Your task to perform on an android device: Show me popular games on the Play Store Image 0: 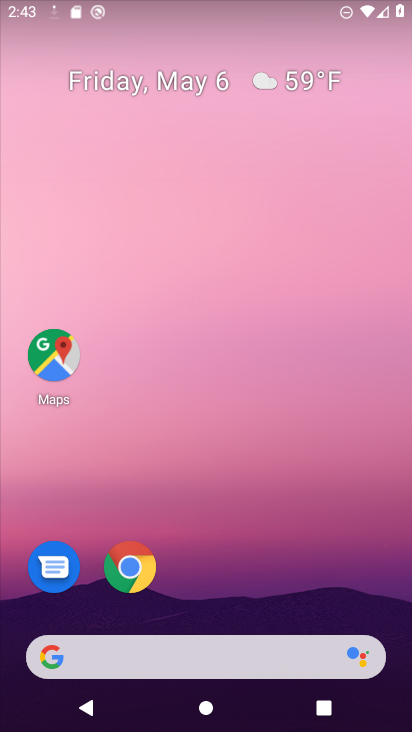
Step 0: drag from (135, 623) to (249, 72)
Your task to perform on an android device: Show me popular games on the Play Store Image 1: 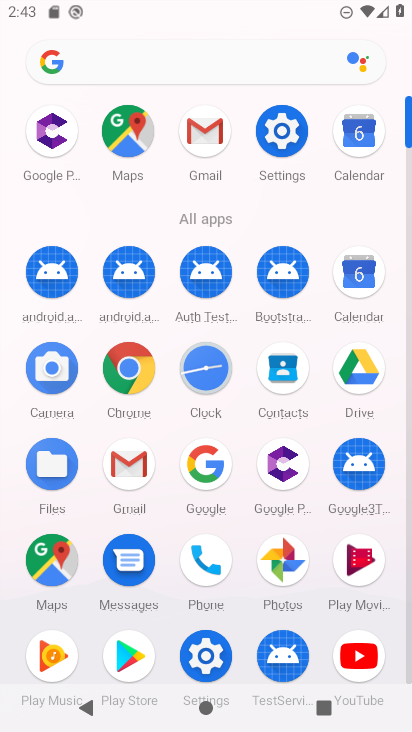
Step 1: drag from (215, 674) to (252, 501)
Your task to perform on an android device: Show me popular games on the Play Store Image 2: 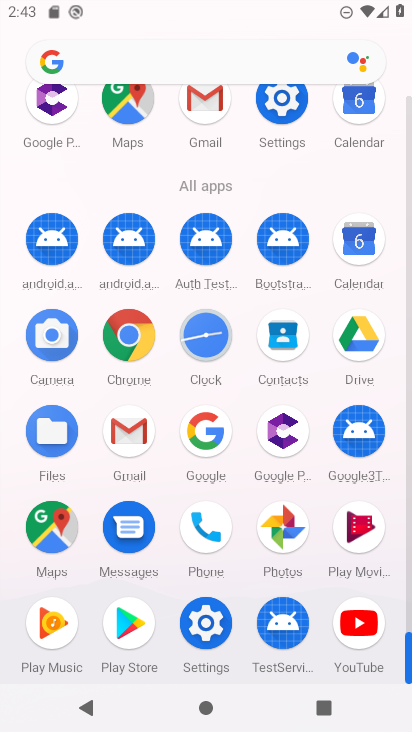
Step 2: click (350, 541)
Your task to perform on an android device: Show me popular games on the Play Store Image 3: 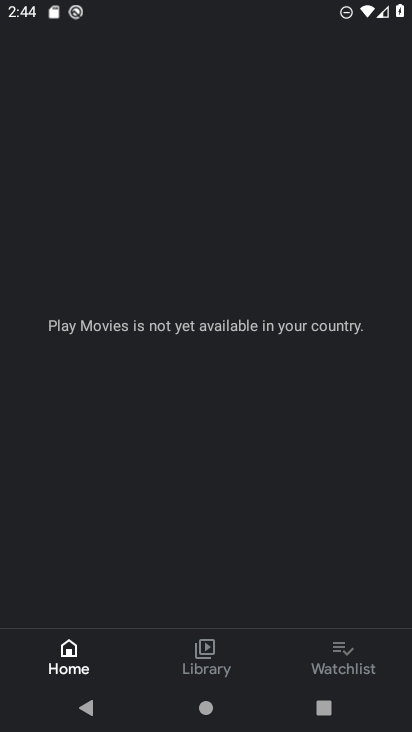
Step 3: click (333, 672)
Your task to perform on an android device: Show me popular games on the Play Store Image 4: 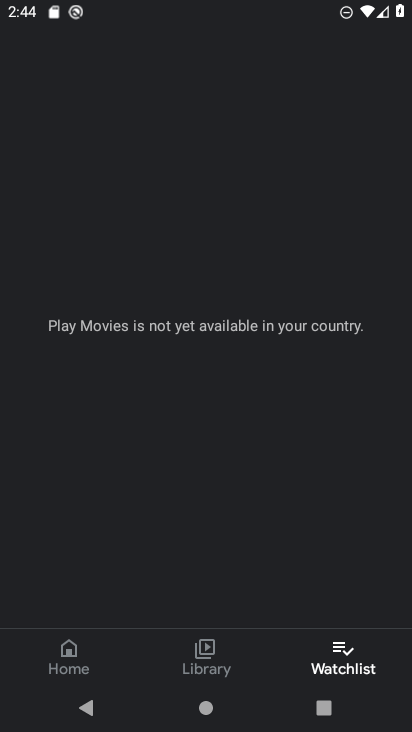
Step 4: task complete